Your task to perform on an android device: What time is it in Sydney? Image 0: 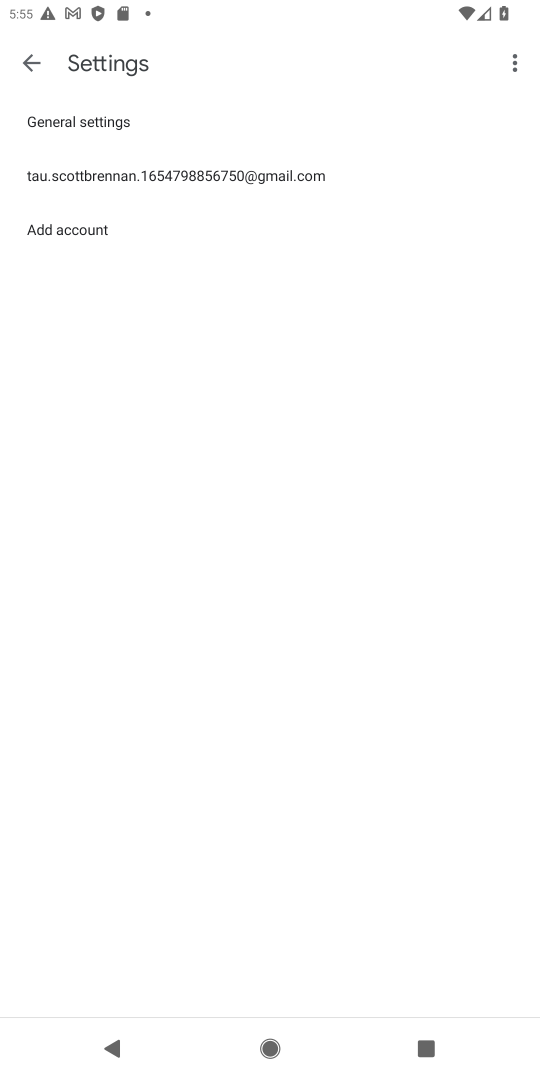
Step 0: press home button
Your task to perform on an android device: What time is it in Sydney? Image 1: 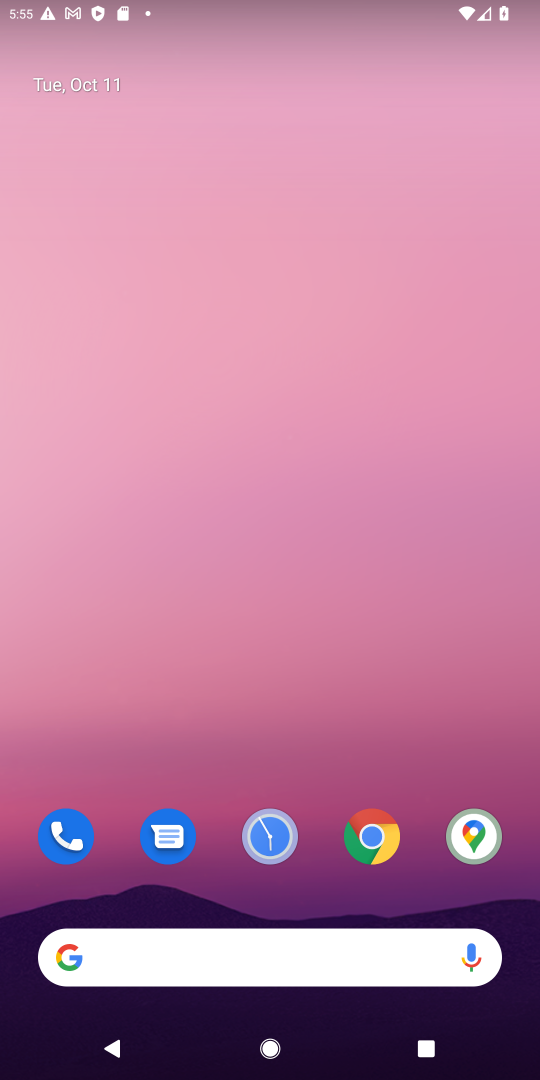
Step 1: click (371, 835)
Your task to perform on an android device: What time is it in Sydney? Image 2: 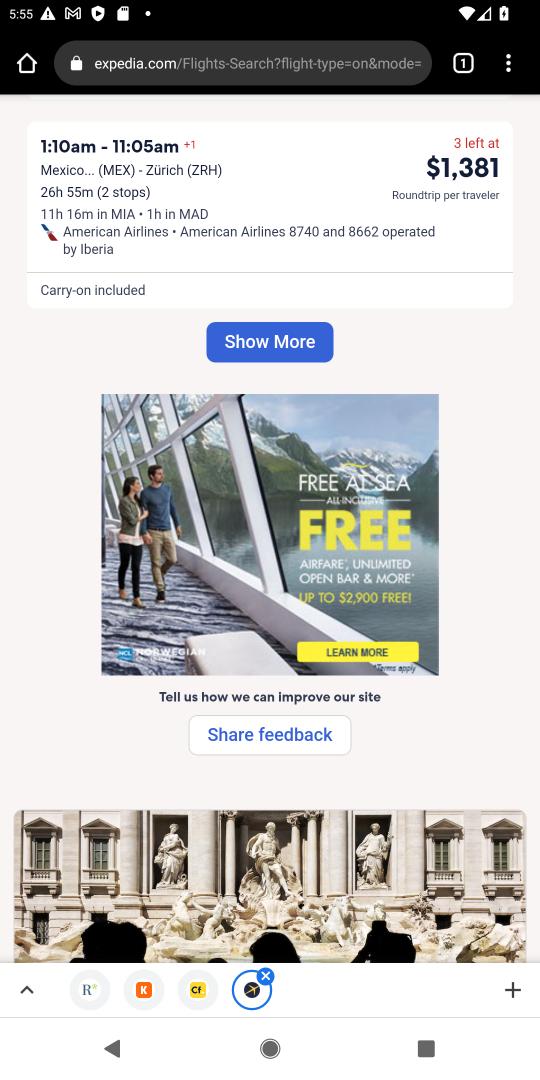
Step 2: click (227, 50)
Your task to perform on an android device: What time is it in Sydney? Image 3: 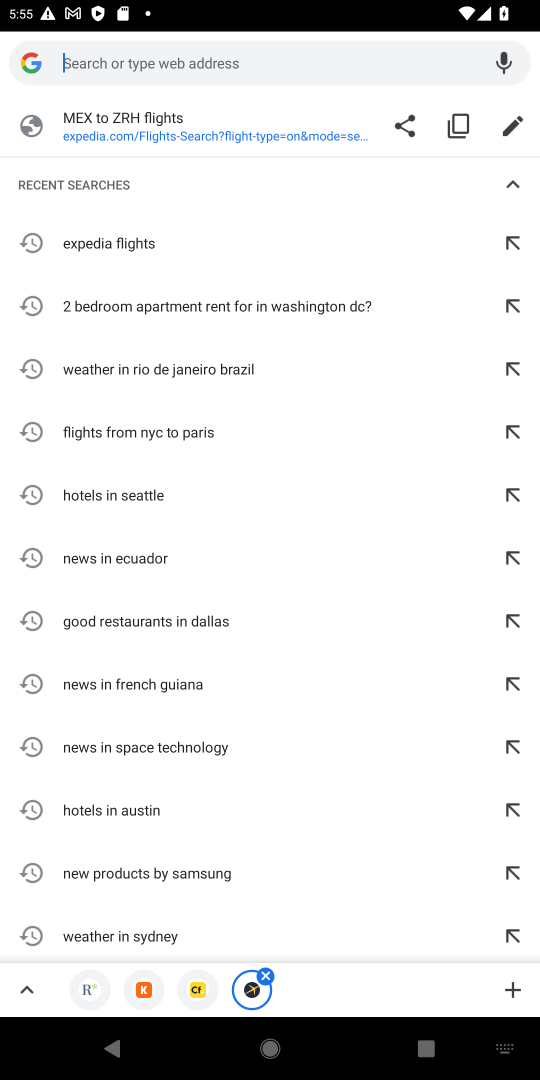
Step 3: type "time in sydney"
Your task to perform on an android device: What time is it in Sydney? Image 4: 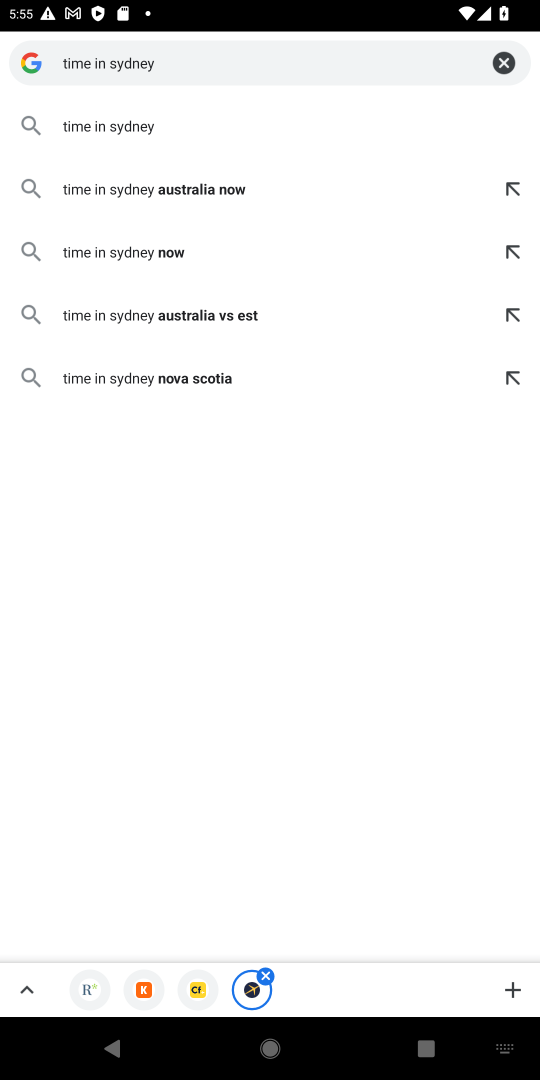
Step 4: click (121, 129)
Your task to perform on an android device: What time is it in Sydney? Image 5: 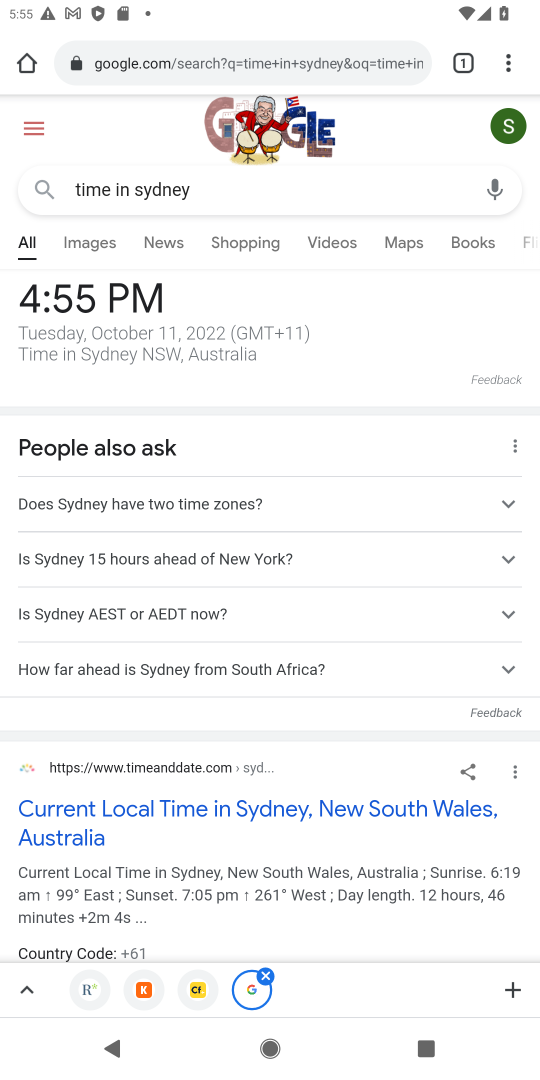
Step 5: task complete